Your task to perform on an android device: delete the emails in spam in the gmail app Image 0: 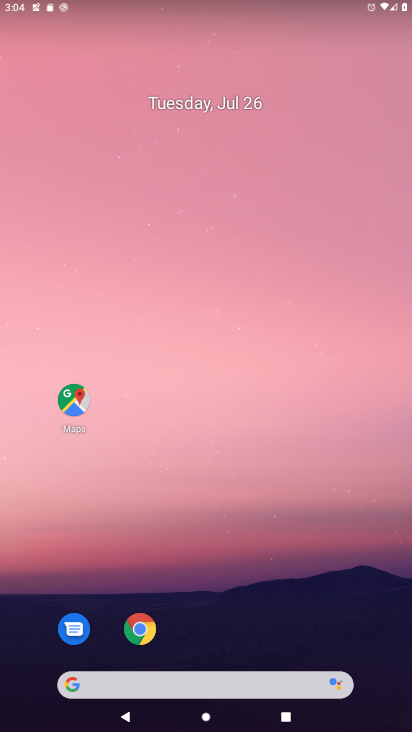
Step 0: drag from (190, 613) to (185, 205)
Your task to perform on an android device: delete the emails in spam in the gmail app Image 1: 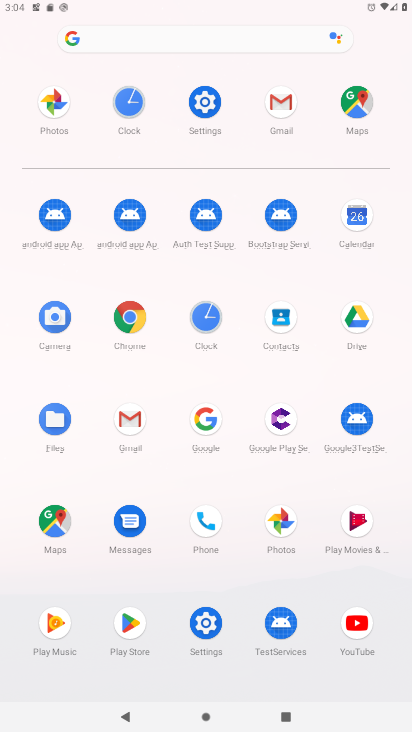
Step 1: click (269, 123)
Your task to perform on an android device: delete the emails in spam in the gmail app Image 2: 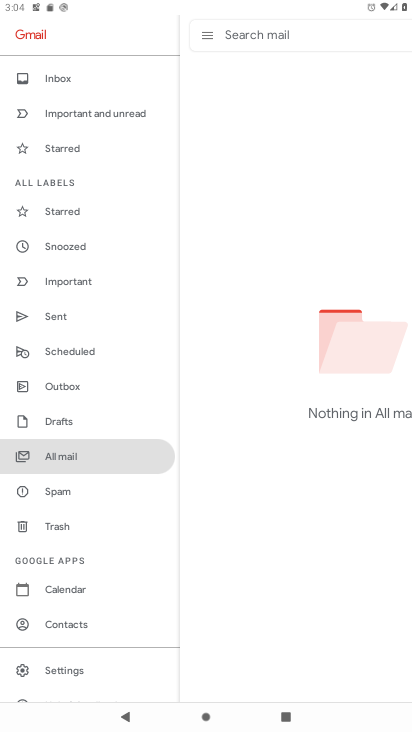
Step 2: click (74, 495)
Your task to perform on an android device: delete the emails in spam in the gmail app Image 3: 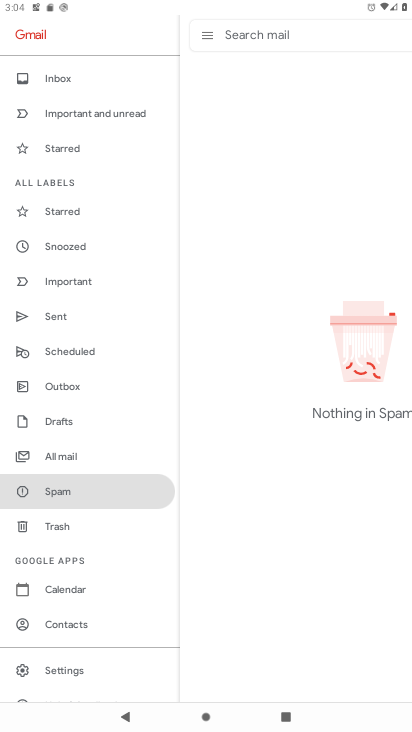
Step 3: task complete